Your task to perform on an android device: turn on priority inbox in the gmail app Image 0: 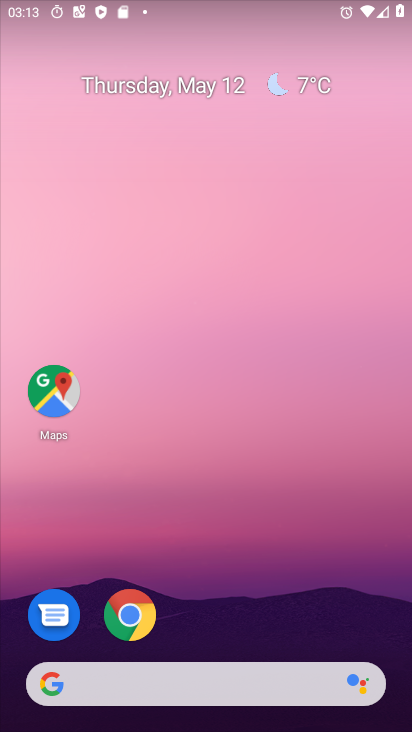
Step 0: drag from (230, 677) to (161, 150)
Your task to perform on an android device: turn on priority inbox in the gmail app Image 1: 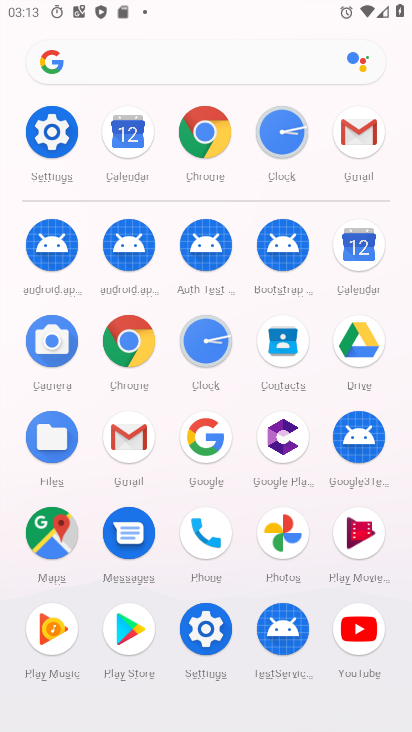
Step 1: click (143, 436)
Your task to perform on an android device: turn on priority inbox in the gmail app Image 2: 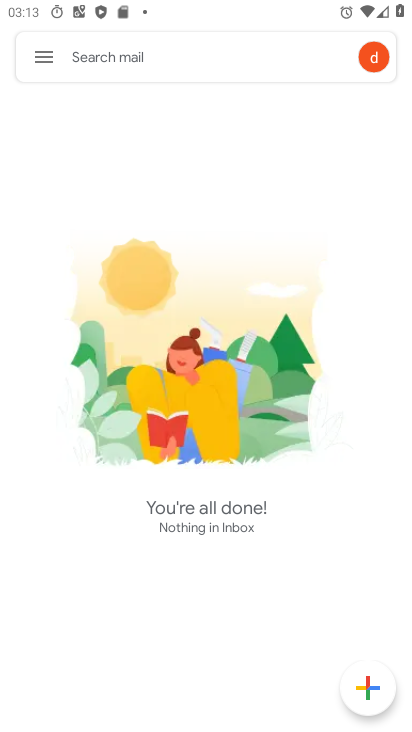
Step 2: click (45, 61)
Your task to perform on an android device: turn on priority inbox in the gmail app Image 3: 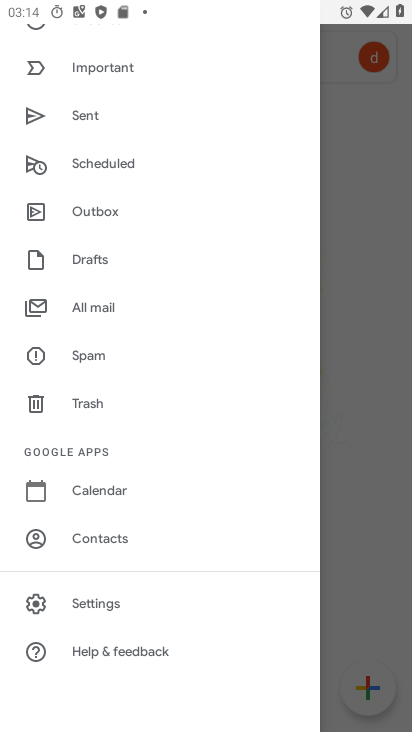
Step 3: click (103, 602)
Your task to perform on an android device: turn on priority inbox in the gmail app Image 4: 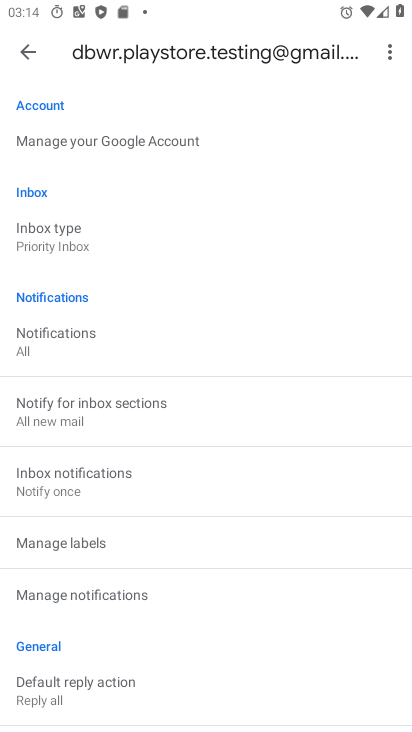
Step 4: drag from (159, 642) to (159, 215)
Your task to perform on an android device: turn on priority inbox in the gmail app Image 5: 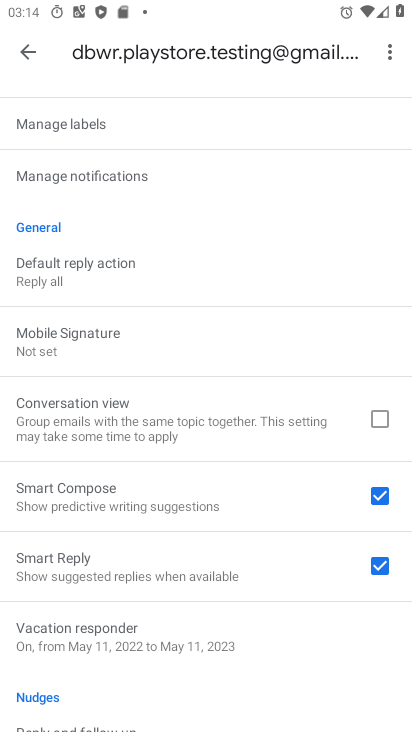
Step 5: drag from (125, 214) to (152, 728)
Your task to perform on an android device: turn on priority inbox in the gmail app Image 6: 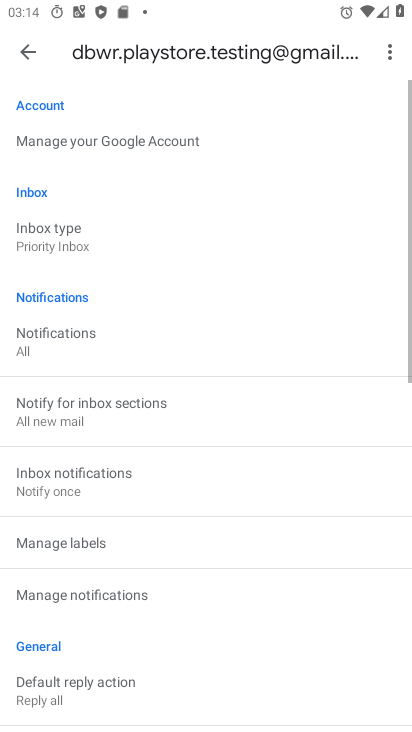
Step 6: click (58, 257)
Your task to perform on an android device: turn on priority inbox in the gmail app Image 7: 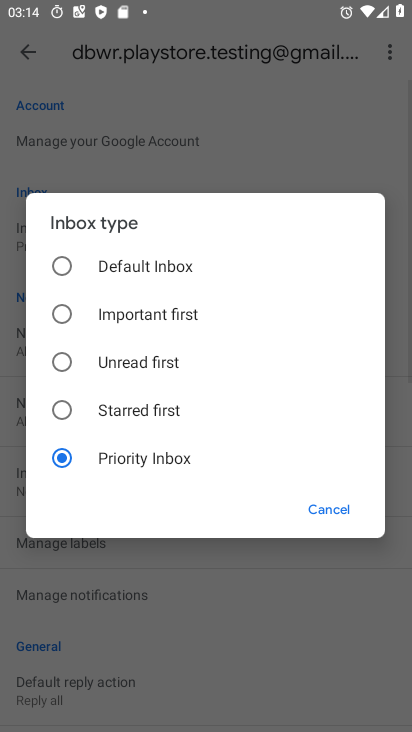
Step 7: click (97, 470)
Your task to perform on an android device: turn on priority inbox in the gmail app Image 8: 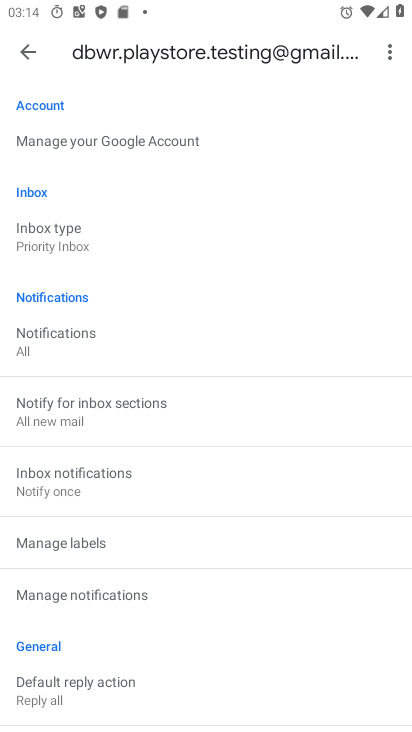
Step 8: task complete